Your task to perform on an android device: all mails in gmail Image 0: 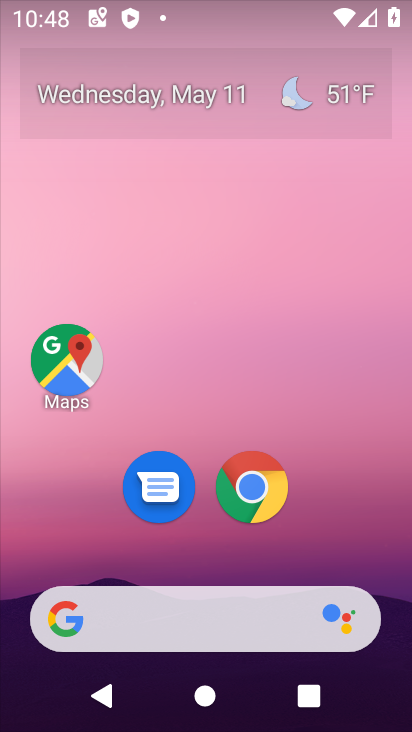
Step 0: drag from (391, 501) to (371, 81)
Your task to perform on an android device: all mails in gmail Image 1: 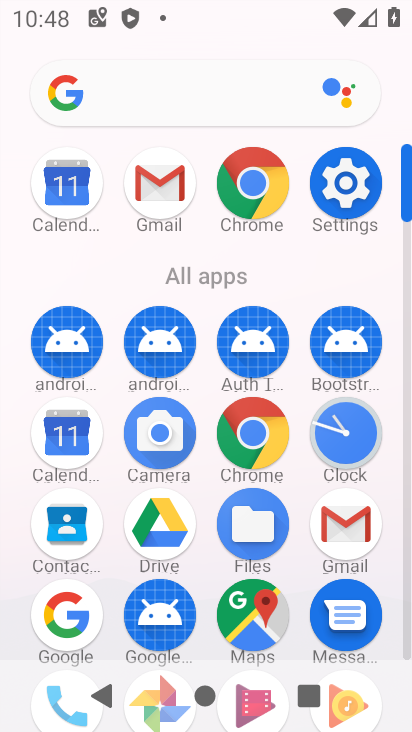
Step 1: click (153, 202)
Your task to perform on an android device: all mails in gmail Image 2: 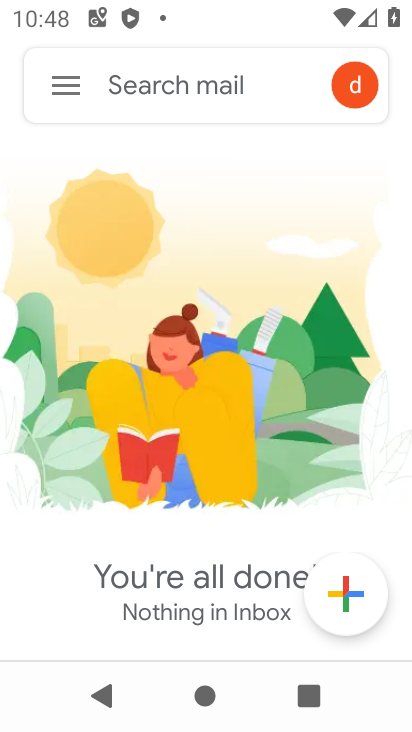
Step 2: click (62, 78)
Your task to perform on an android device: all mails in gmail Image 3: 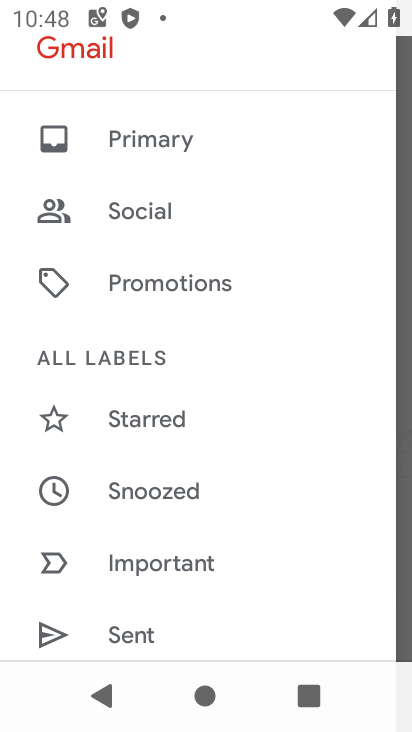
Step 3: drag from (134, 542) to (139, 213)
Your task to perform on an android device: all mails in gmail Image 4: 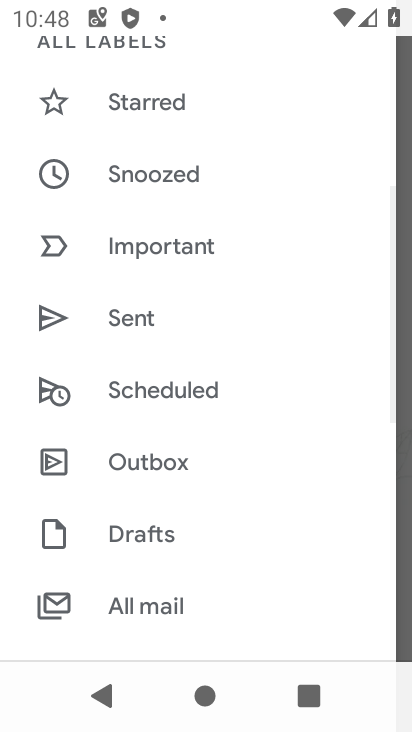
Step 4: click (168, 611)
Your task to perform on an android device: all mails in gmail Image 5: 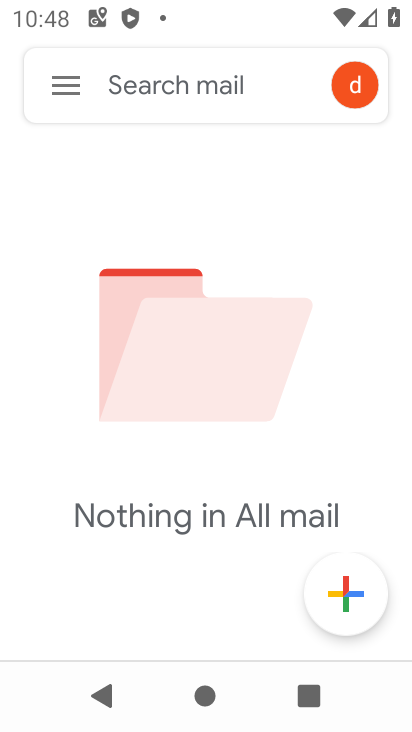
Step 5: task complete